Your task to perform on an android device: turn vacation reply on in the gmail app Image 0: 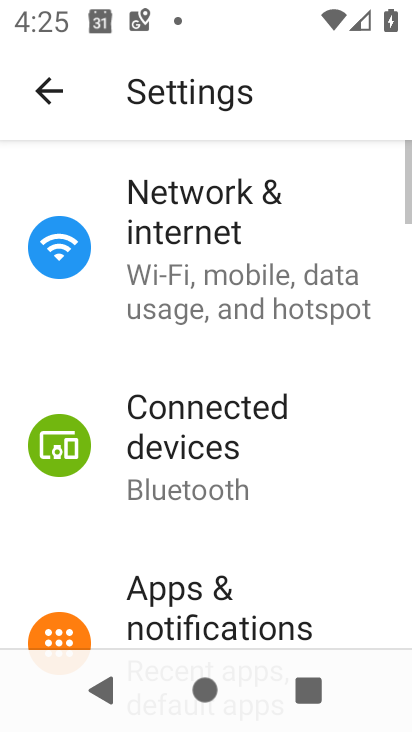
Step 0: press home button
Your task to perform on an android device: turn vacation reply on in the gmail app Image 1: 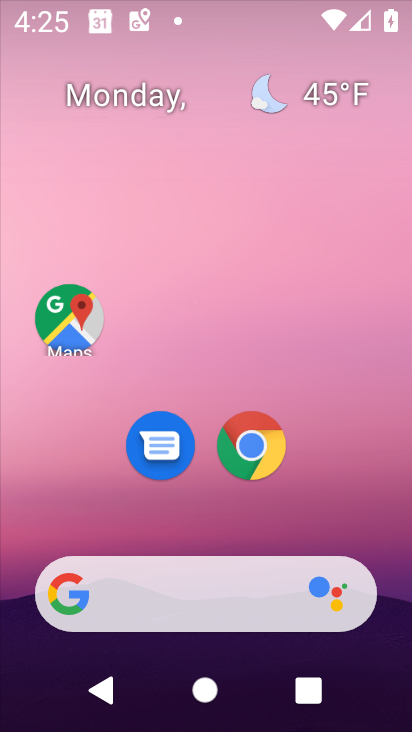
Step 1: drag from (319, 525) to (316, 16)
Your task to perform on an android device: turn vacation reply on in the gmail app Image 2: 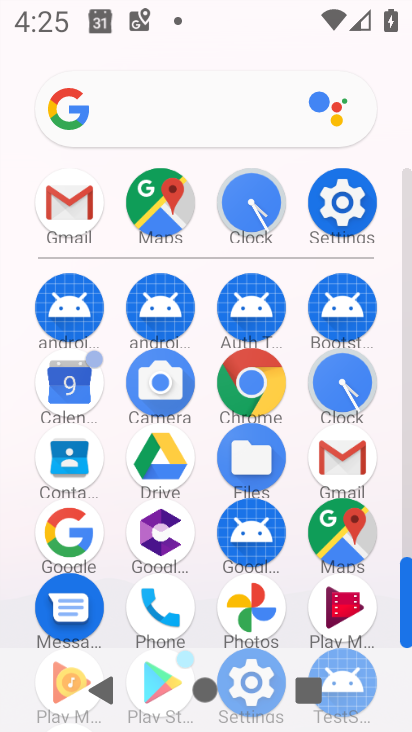
Step 2: click (347, 435)
Your task to perform on an android device: turn vacation reply on in the gmail app Image 3: 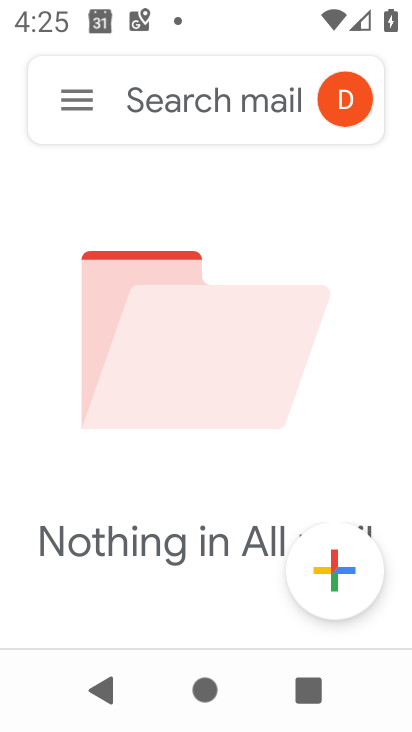
Step 3: click (71, 112)
Your task to perform on an android device: turn vacation reply on in the gmail app Image 4: 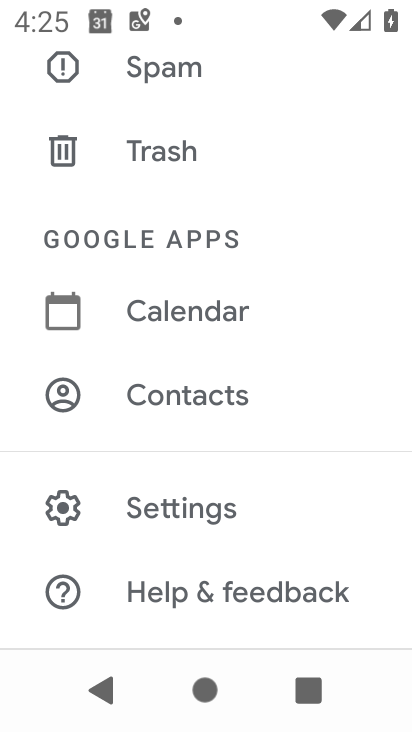
Step 4: click (250, 500)
Your task to perform on an android device: turn vacation reply on in the gmail app Image 5: 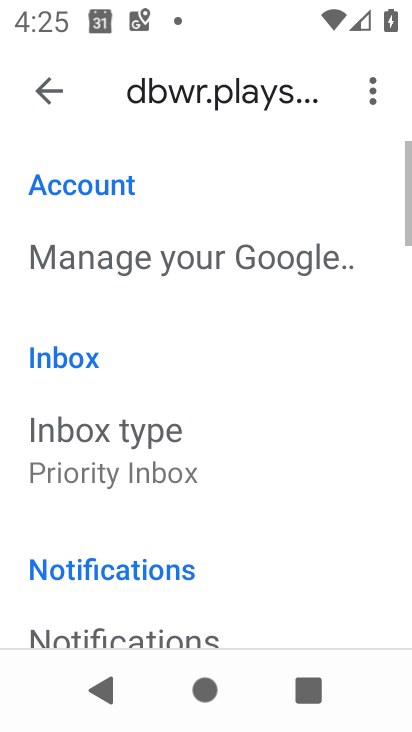
Step 5: drag from (197, 572) to (292, 131)
Your task to perform on an android device: turn vacation reply on in the gmail app Image 6: 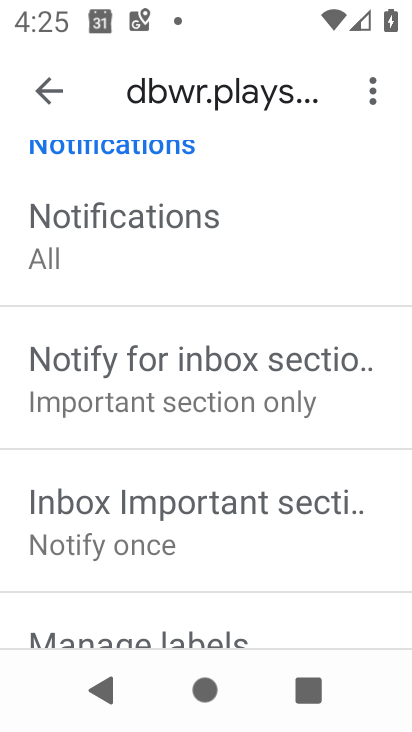
Step 6: drag from (295, 536) to (328, 89)
Your task to perform on an android device: turn vacation reply on in the gmail app Image 7: 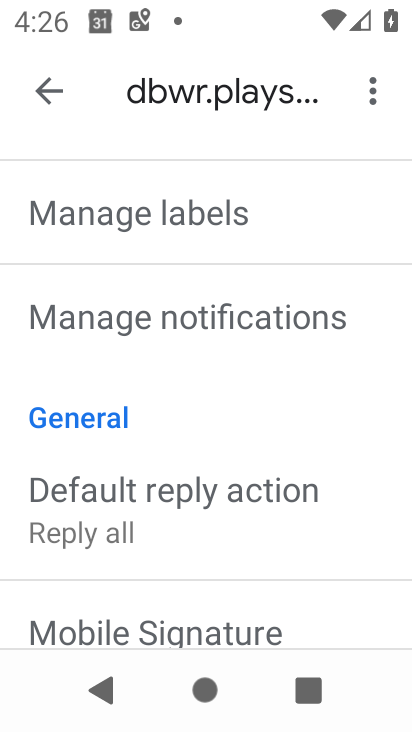
Step 7: drag from (257, 574) to (295, 176)
Your task to perform on an android device: turn vacation reply on in the gmail app Image 8: 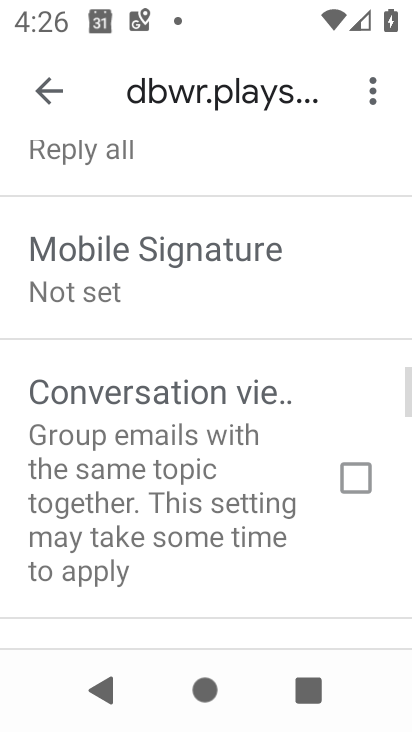
Step 8: drag from (203, 571) to (238, 163)
Your task to perform on an android device: turn vacation reply on in the gmail app Image 9: 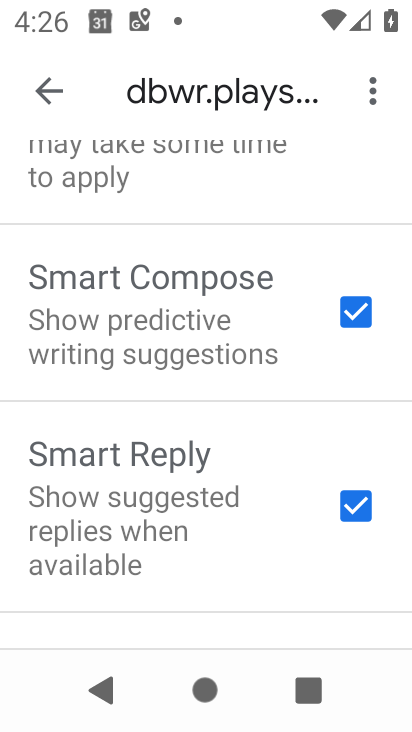
Step 9: drag from (266, 515) to (370, 61)
Your task to perform on an android device: turn vacation reply on in the gmail app Image 10: 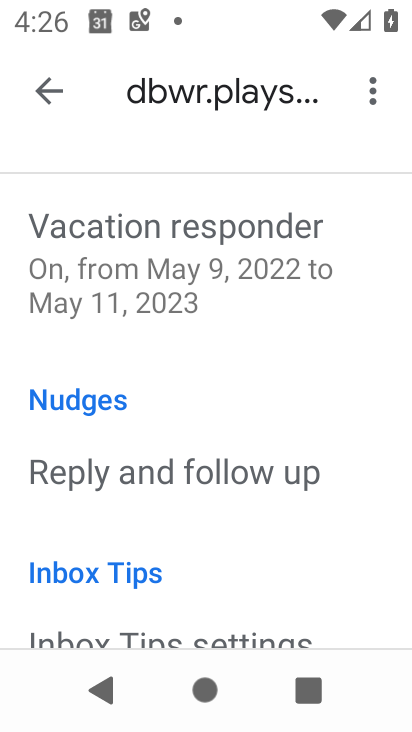
Step 10: drag from (201, 584) to (250, 560)
Your task to perform on an android device: turn vacation reply on in the gmail app Image 11: 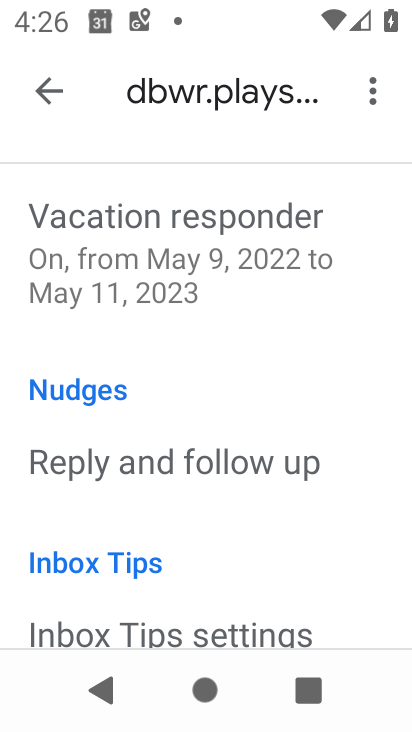
Step 11: click (268, 257)
Your task to perform on an android device: turn vacation reply on in the gmail app Image 12: 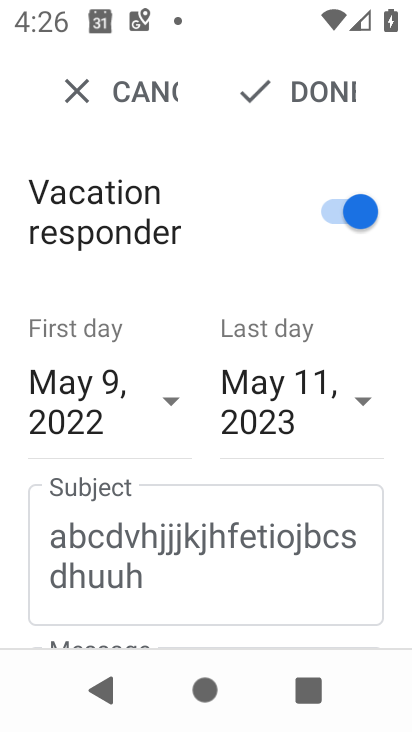
Step 12: click (314, 94)
Your task to perform on an android device: turn vacation reply on in the gmail app Image 13: 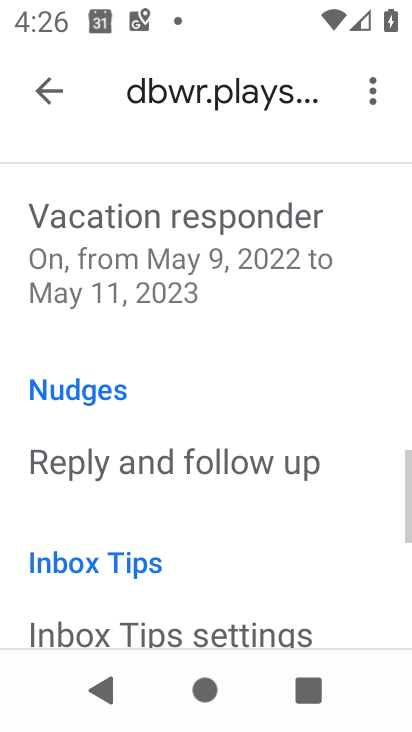
Step 13: task complete